Your task to perform on an android device: toggle sleep mode Image 0: 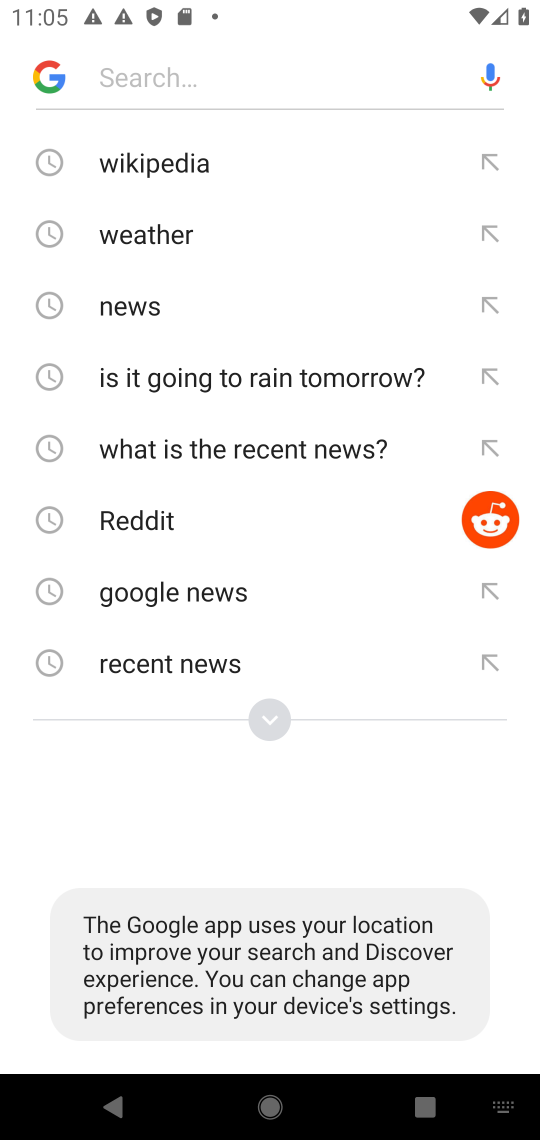
Step 0: press home button
Your task to perform on an android device: toggle sleep mode Image 1: 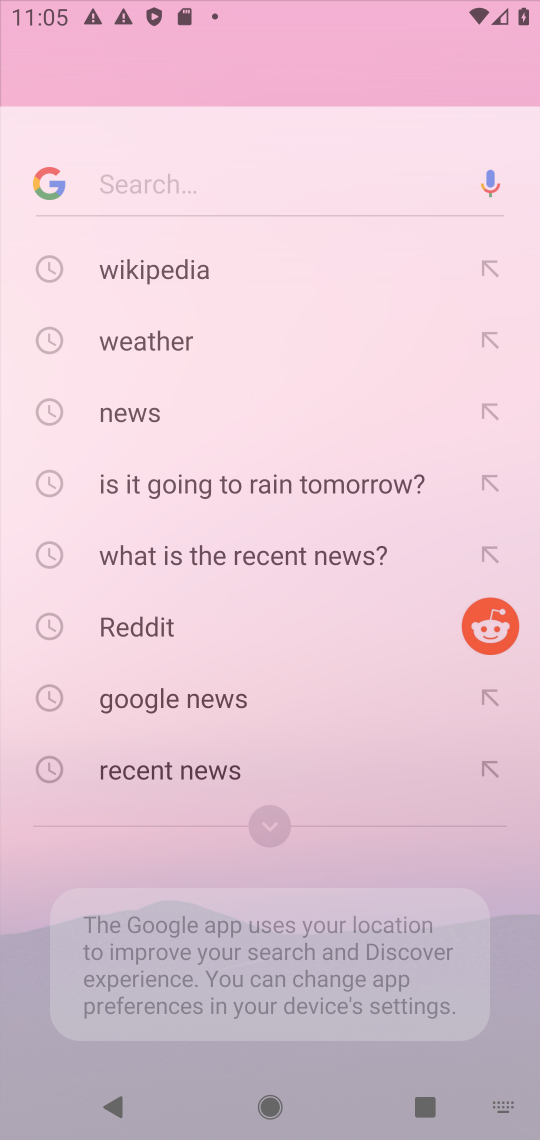
Step 1: press home button
Your task to perform on an android device: toggle sleep mode Image 2: 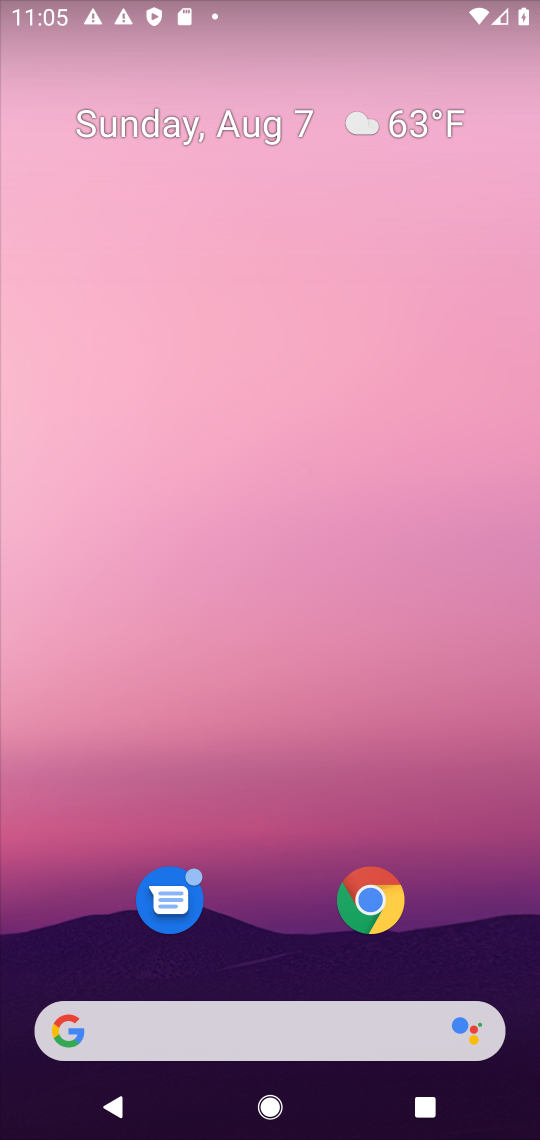
Step 2: drag from (255, 950) to (295, 113)
Your task to perform on an android device: toggle sleep mode Image 3: 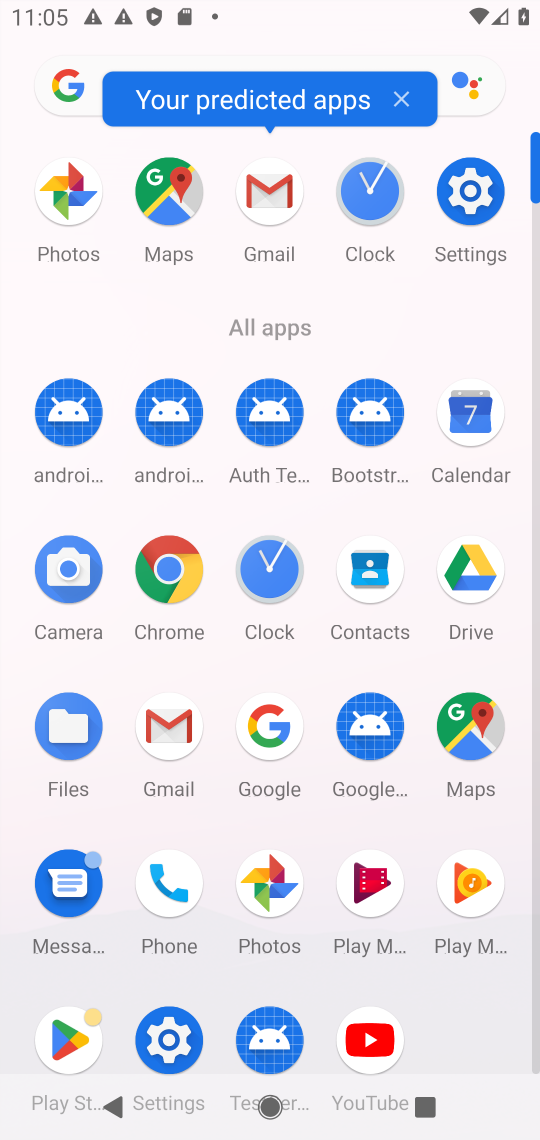
Step 3: click (173, 1030)
Your task to perform on an android device: toggle sleep mode Image 4: 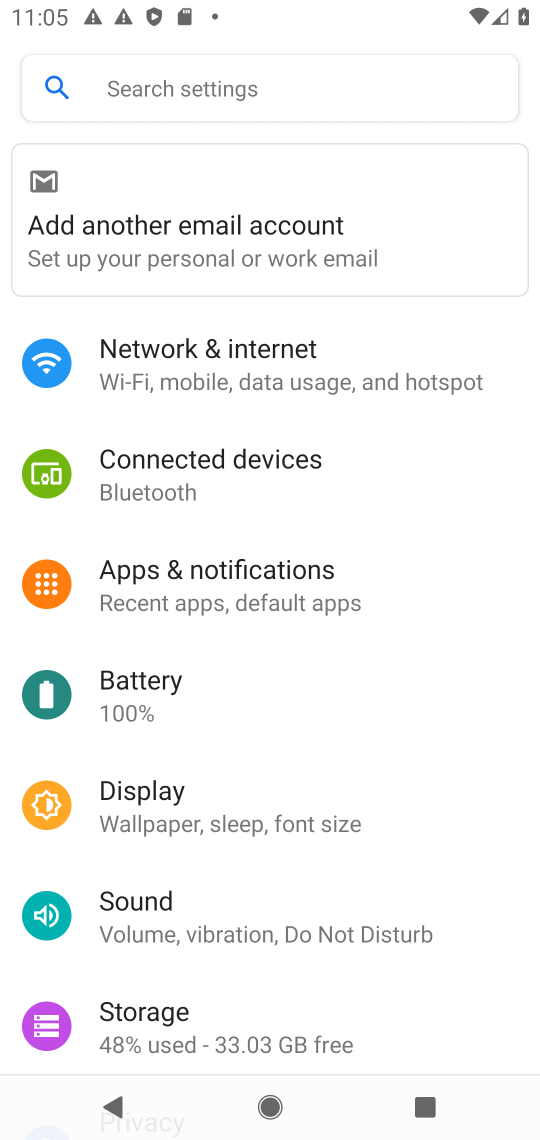
Step 4: click (197, 810)
Your task to perform on an android device: toggle sleep mode Image 5: 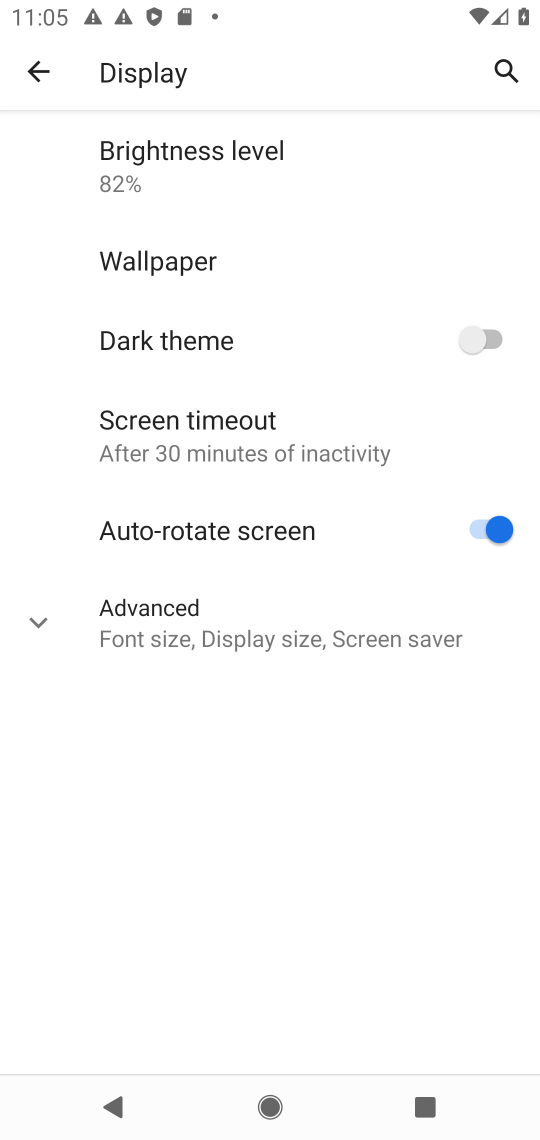
Step 5: click (41, 621)
Your task to perform on an android device: toggle sleep mode Image 6: 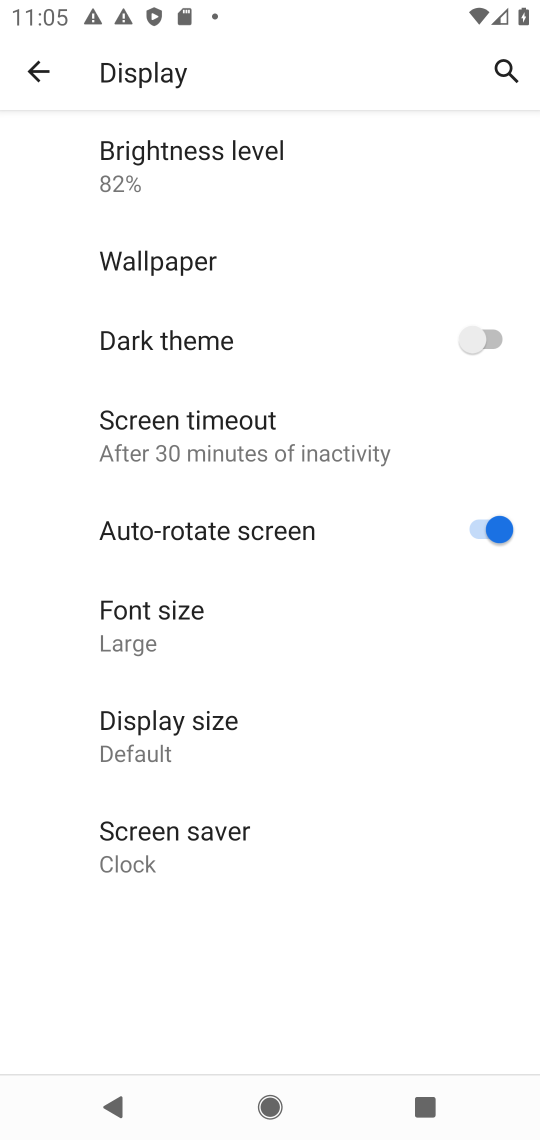
Step 6: task complete